Your task to perform on an android device: show emergency info Image 0: 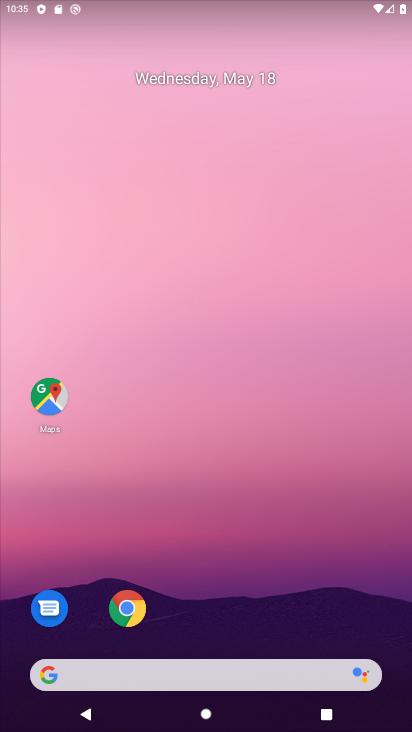
Step 0: press home button
Your task to perform on an android device: show emergency info Image 1: 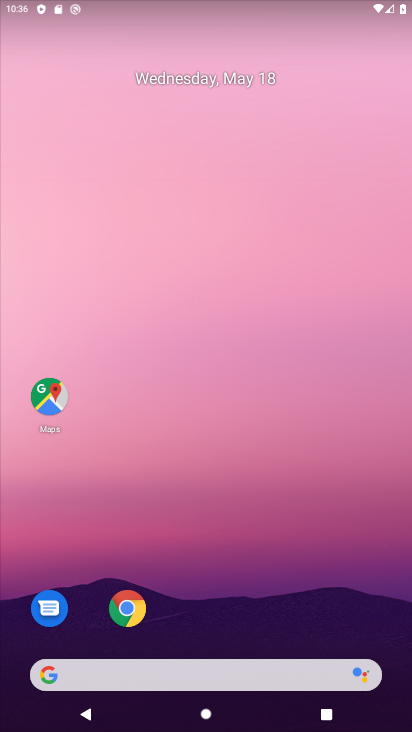
Step 1: drag from (193, 612) to (181, 0)
Your task to perform on an android device: show emergency info Image 2: 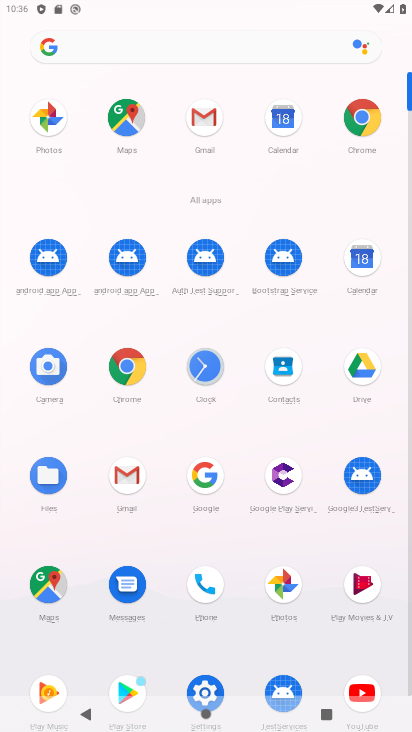
Step 2: click (210, 688)
Your task to perform on an android device: show emergency info Image 3: 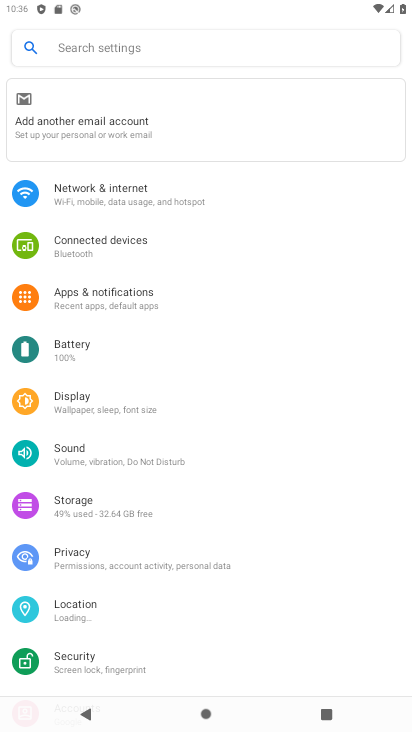
Step 3: drag from (155, 667) to (150, 348)
Your task to perform on an android device: show emergency info Image 4: 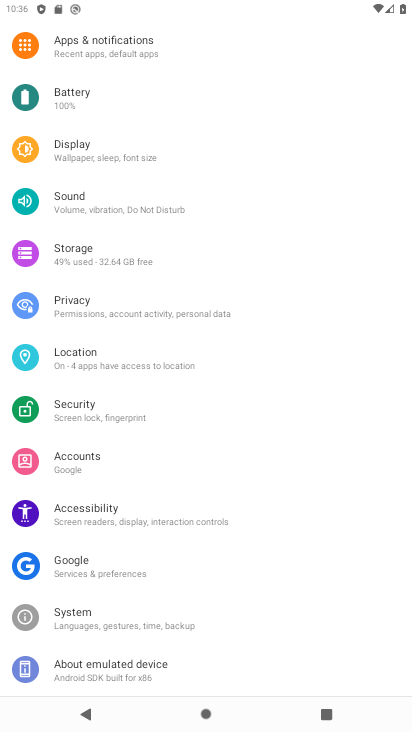
Step 4: click (159, 668)
Your task to perform on an android device: show emergency info Image 5: 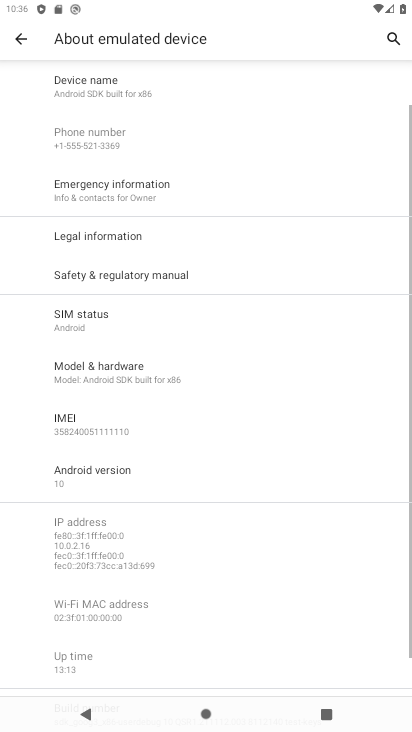
Step 5: click (96, 199)
Your task to perform on an android device: show emergency info Image 6: 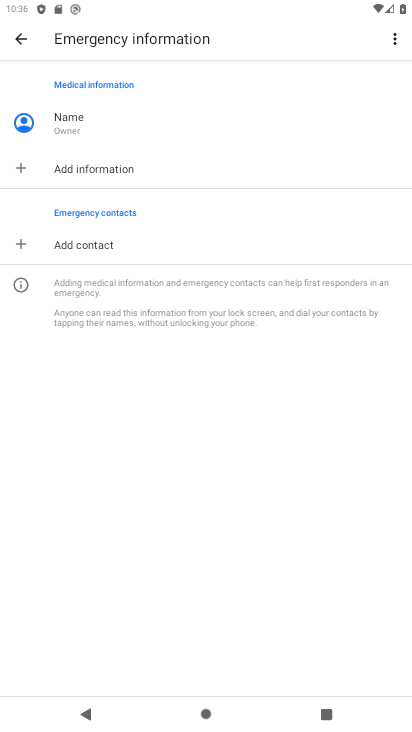
Step 6: task complete